Your task to perform on an android device: open device folders in google photos Image 0: 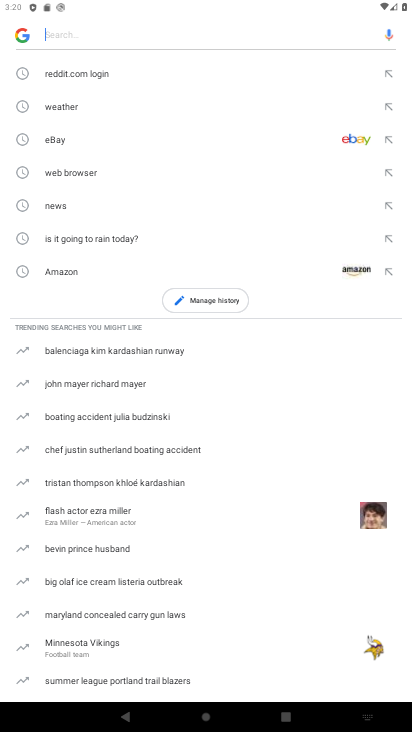
Step 0: press home button
Your task to perform on an android device: open device folders in google photos Image 1: 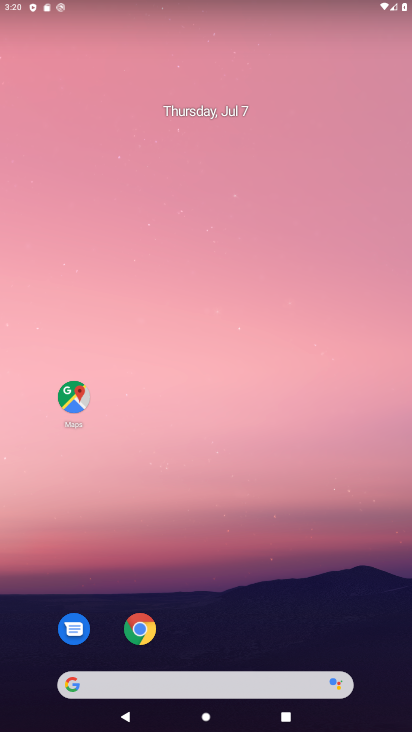
Step 1: drag from (23, 681) to (345, 14)
Your task to perform on an android device: open device folders in google photos Image 2: 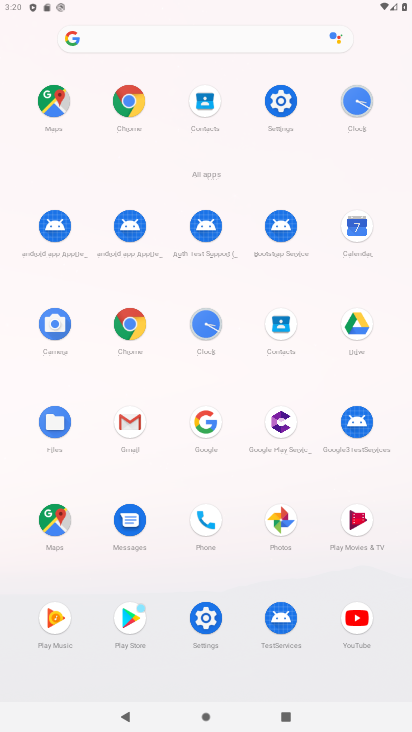
Step 2: click (274, 522)
Your task to perform on an android device: open device folders in google photos Image 3: 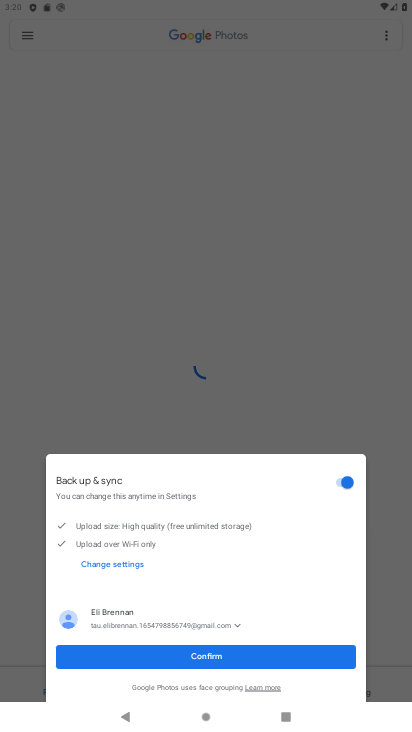
Step 3: click (161, 653)
Your task to perform on an android device: open device folders in google photos Image 4: 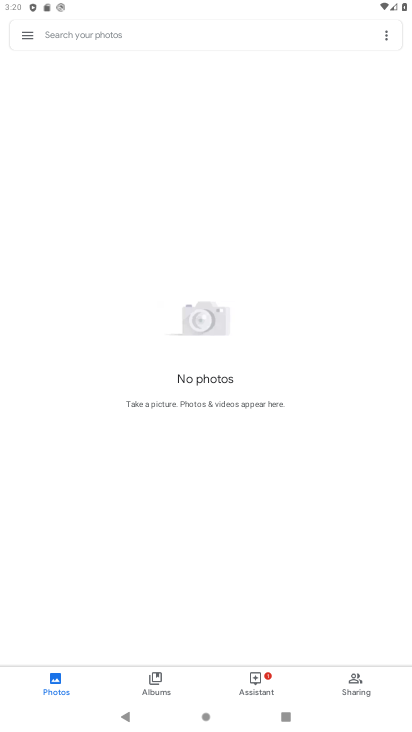
Step 4: click (155, 679)
Your task to perform on an android device: open device folders in google photos Image 5: 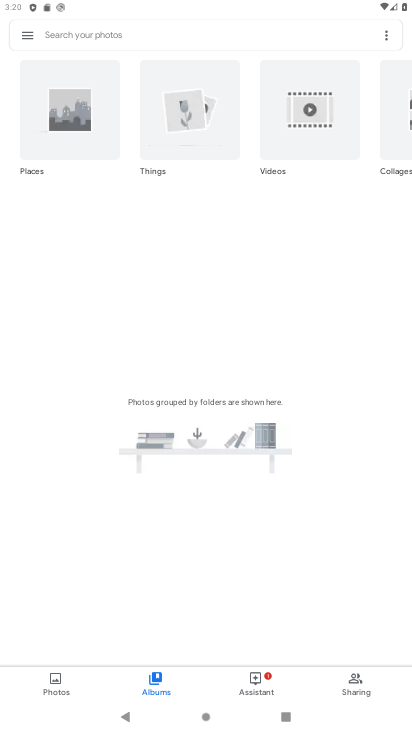
Step 5: task complete